Your task to perform on an android device: Do I have any events this weekend? Image 0: 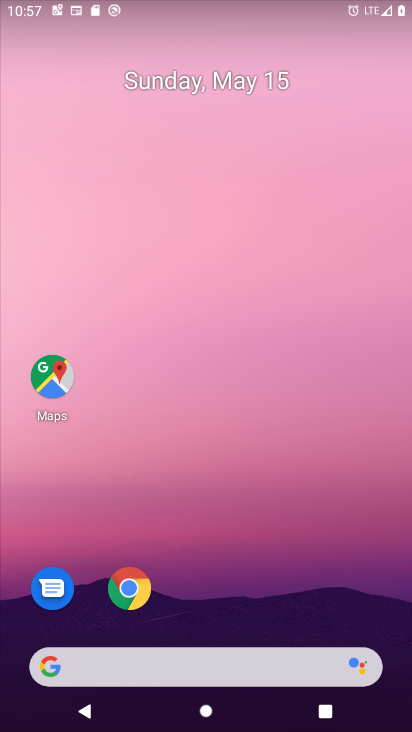
Step 0: click (170, 85)
Your task to perform on an android device: Do I have any events this weekend? Image 1: 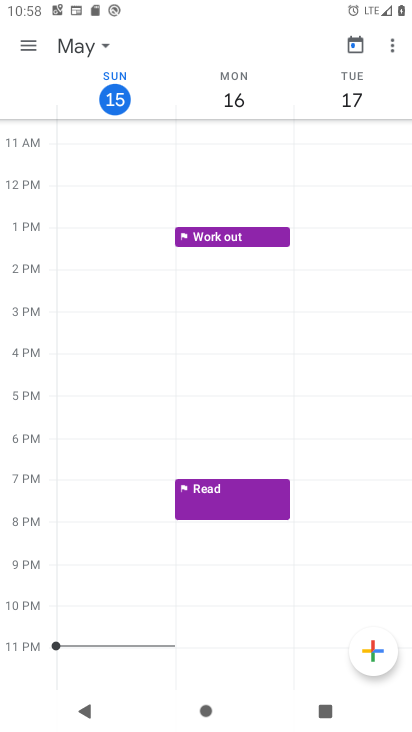
Step 1: task complete